Your task to perform on an android device: all mails in gmail Image 0: 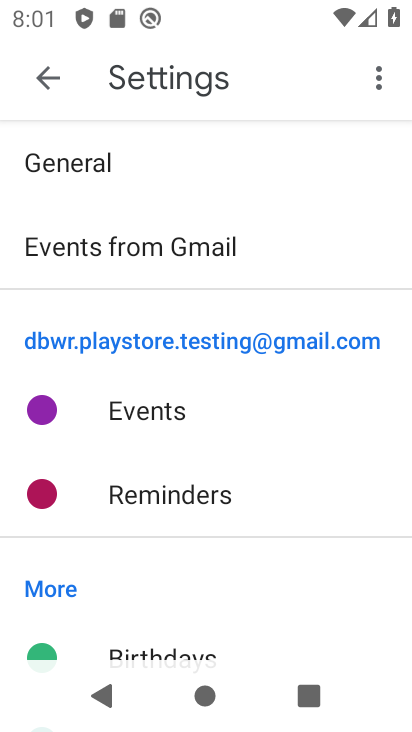
Step 0: press home button
Your task to perform on an android device: all mails in gmail Image 1: 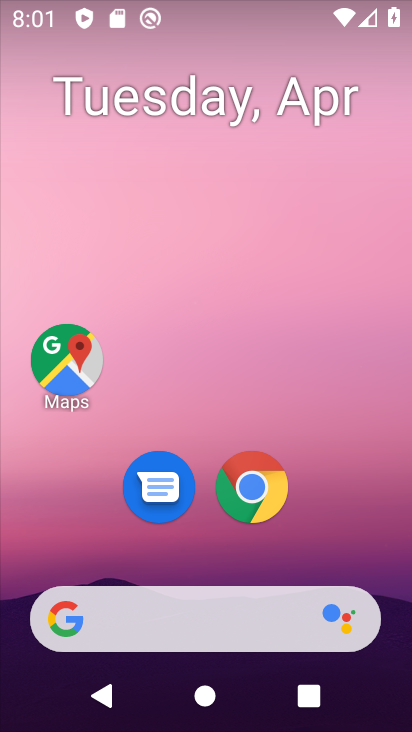
Step 1: drag from (223, 583) to (241, 316)
Your task to perform on an android device: all mails in gmail Image 2: 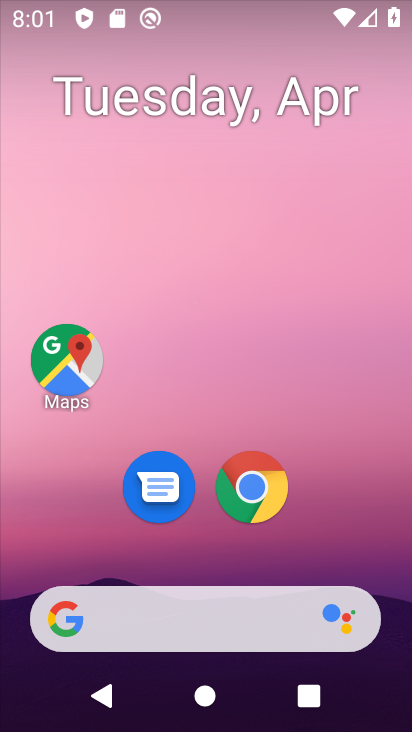
Step 2: drag from (220, 502) to (227, 284)
Your task to perform on an android device: all mails in gmail Image 3: 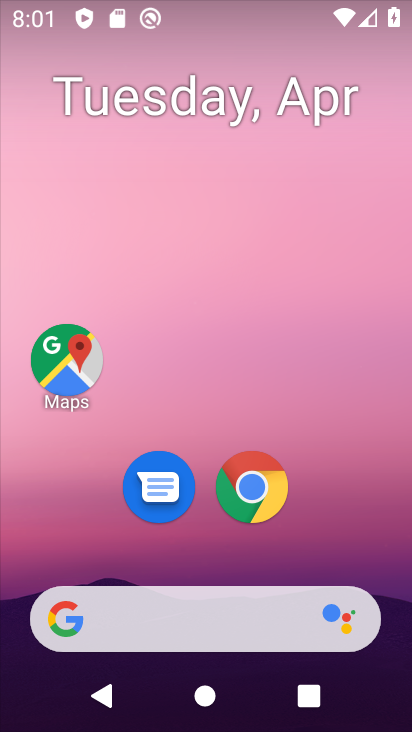
Step 3: drag from (185, 579) to (189, 298)
Your task to perform on an android device: all mails in gmail Image 4: 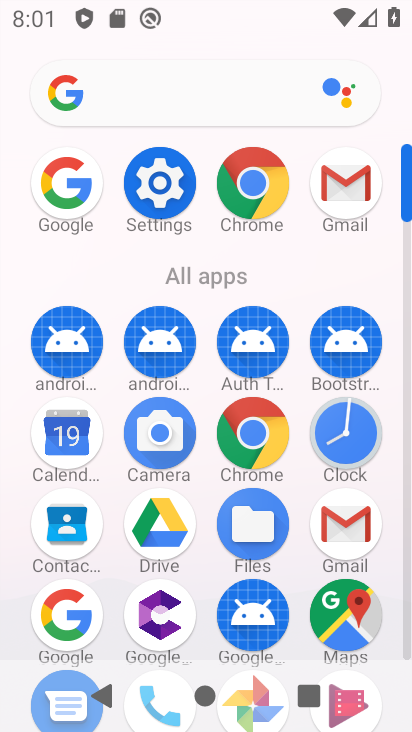
Step 4: click (332, 194)
Your task to perform on an android device: all mails in gmail Image 5: 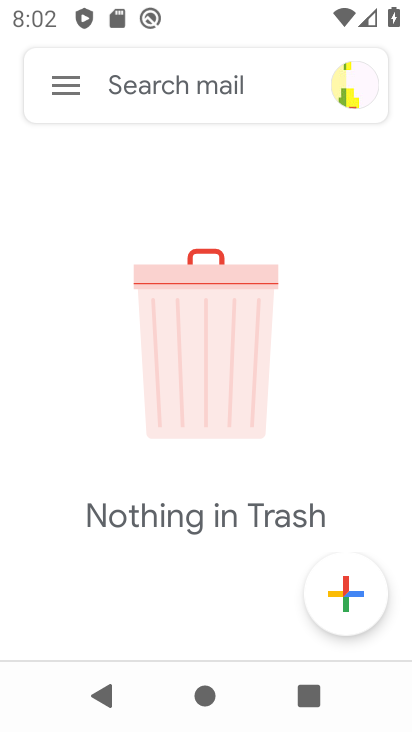
Step 5: click (76, 81)
Your task to perform on an android device: all mails in gmail Image 6: 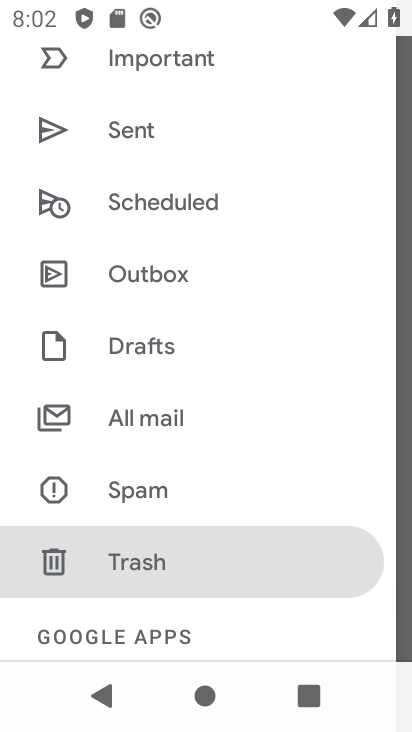
Step 6: click (102, 423)
Your task to perform on an android device: all mails in gmail Image 7: 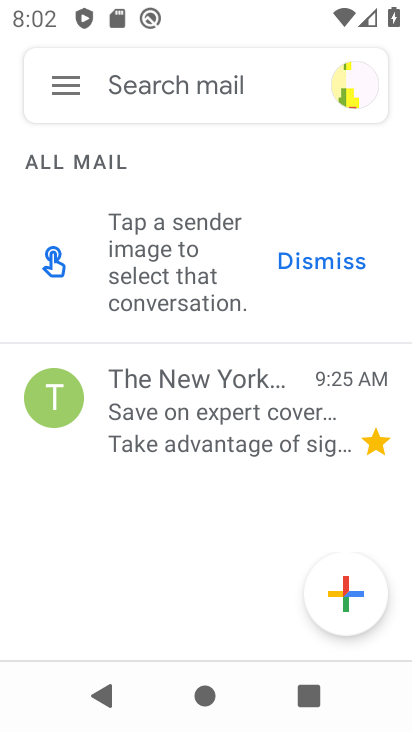
Step 7: task complete